Your task to perform on an android device: Clear the shopping cart on amazon. Image 0: 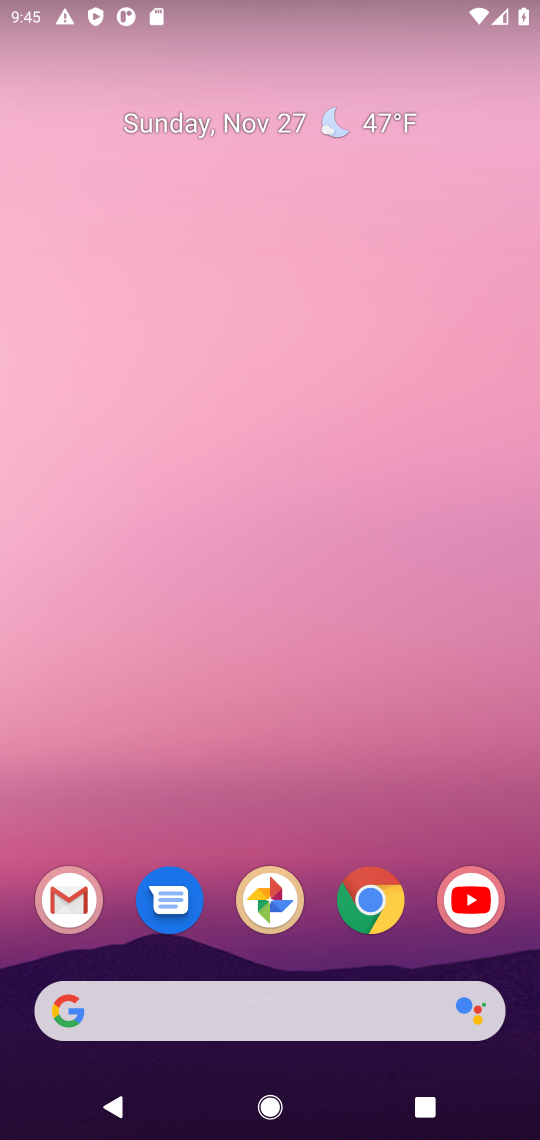
Step 0: click (373, 910)
Your task to perform on an android device: Clear the shopping cart on amazon. Image 1: 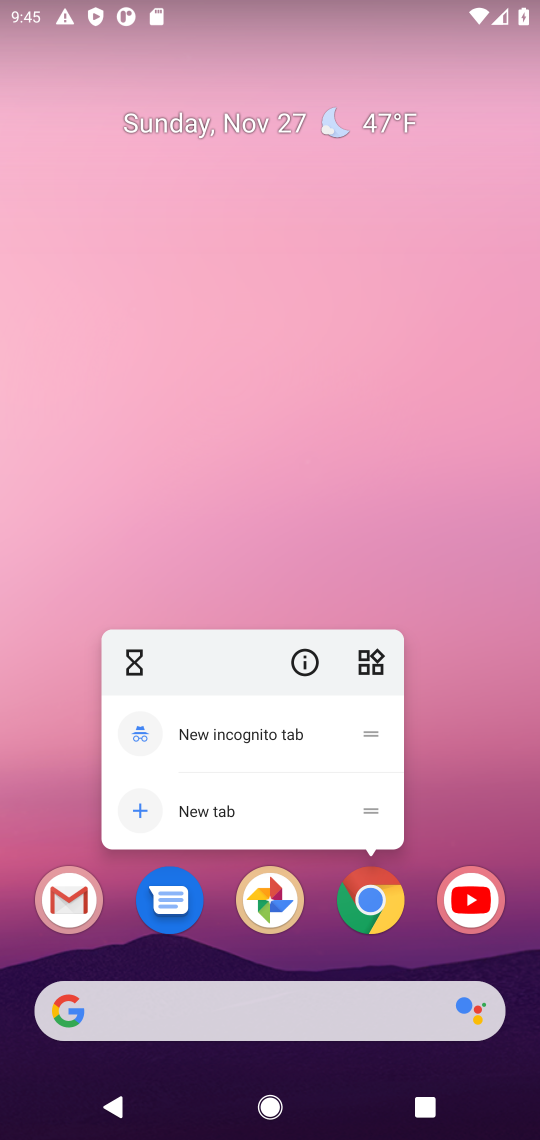
Step 1: click (373, 910)
Your task to perform on an android device: Clear the shopping cart on amazon. Image 2: 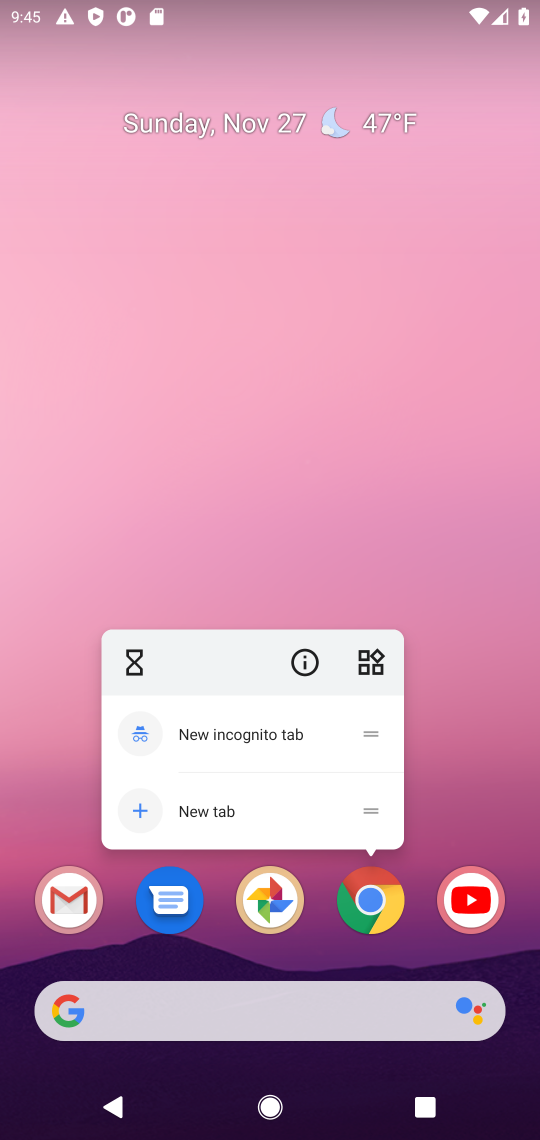
Step 2: click (379, 898)
Your task to perform on an android device: Clear the shopping cart on amazon. Image 3: 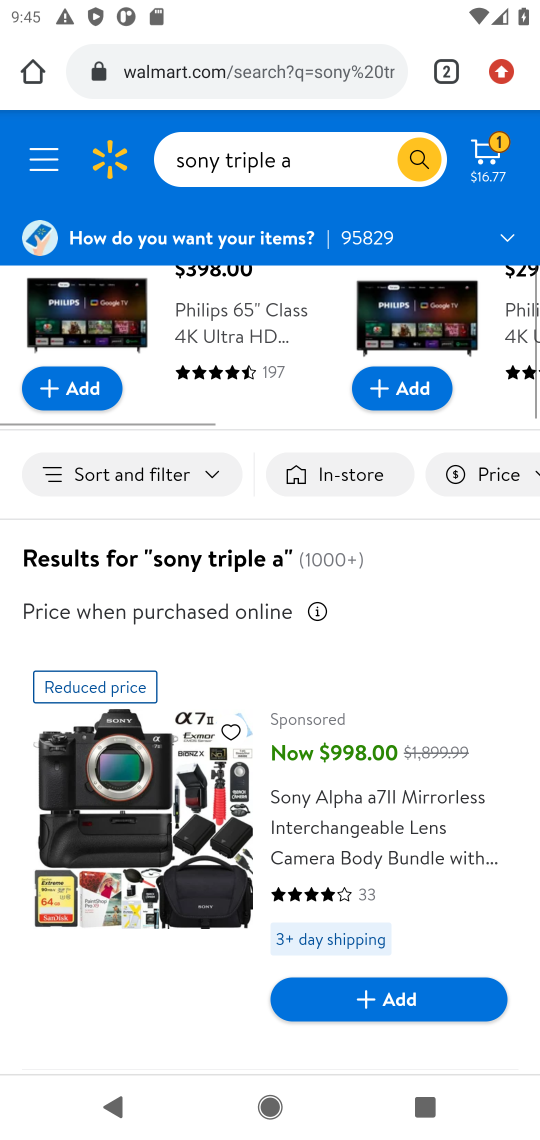
Step 3: click (280, 74)
Your task to perform on an android device: Clear the shopping cart on amazon. Image 4: 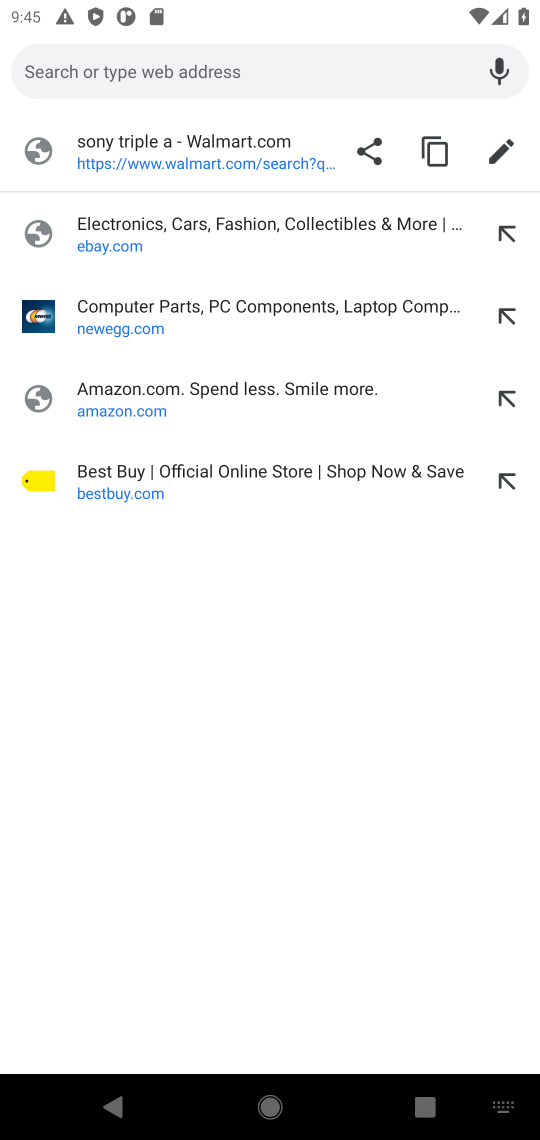
Step 4: click (91, 391)
Your task to perform on an android device: Clear the shopping cart on amazon. Image 5: 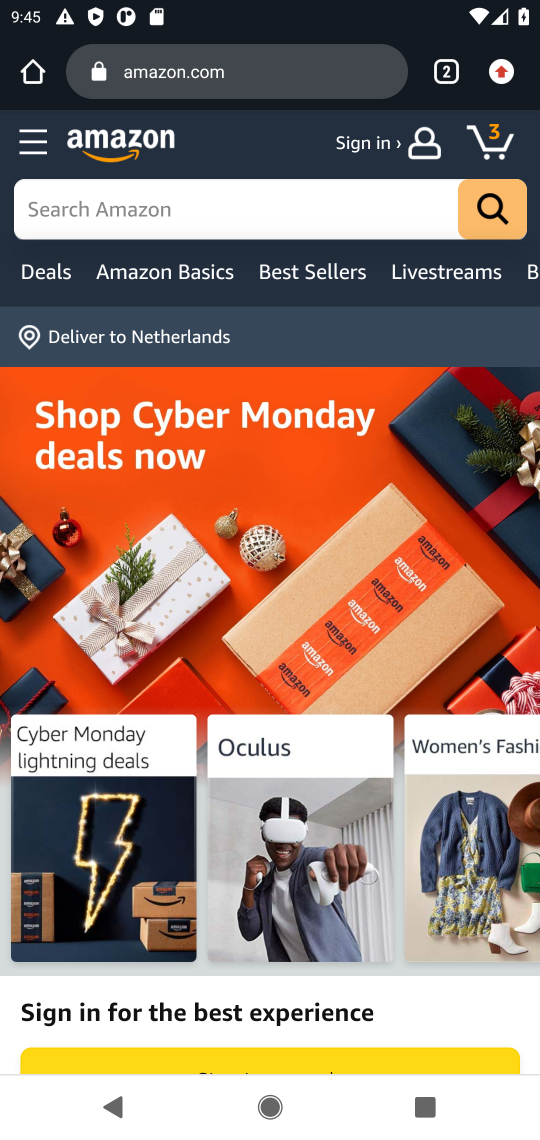
Step 5: click (481, 154)
Your task to perform on an android device: Clear the shopping cart on amazon. Image 6: 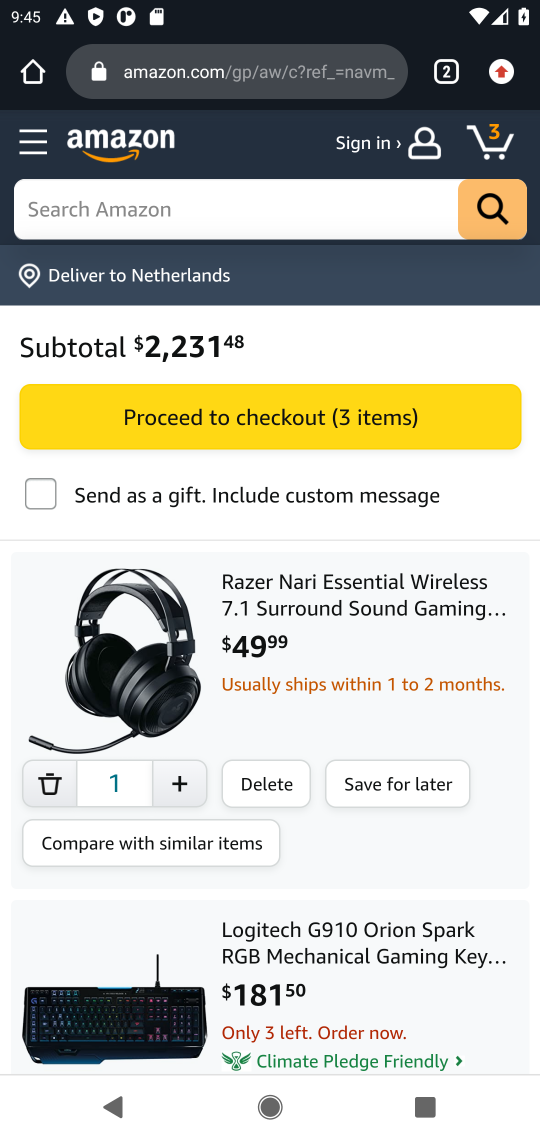
Step 6: click (253, 783)
Your task to perform on an android device: Clear the shopping cart on amazon. Image 7: 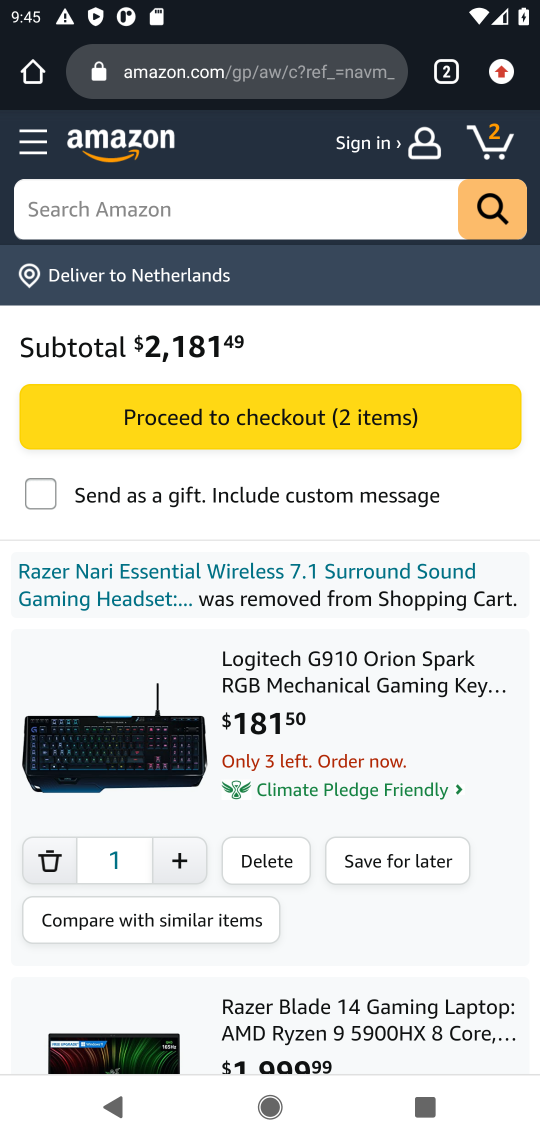
Step 7: click (253, 783)
Your task to perform on an android device: Clear the shopping cart on amazon. Image 8: 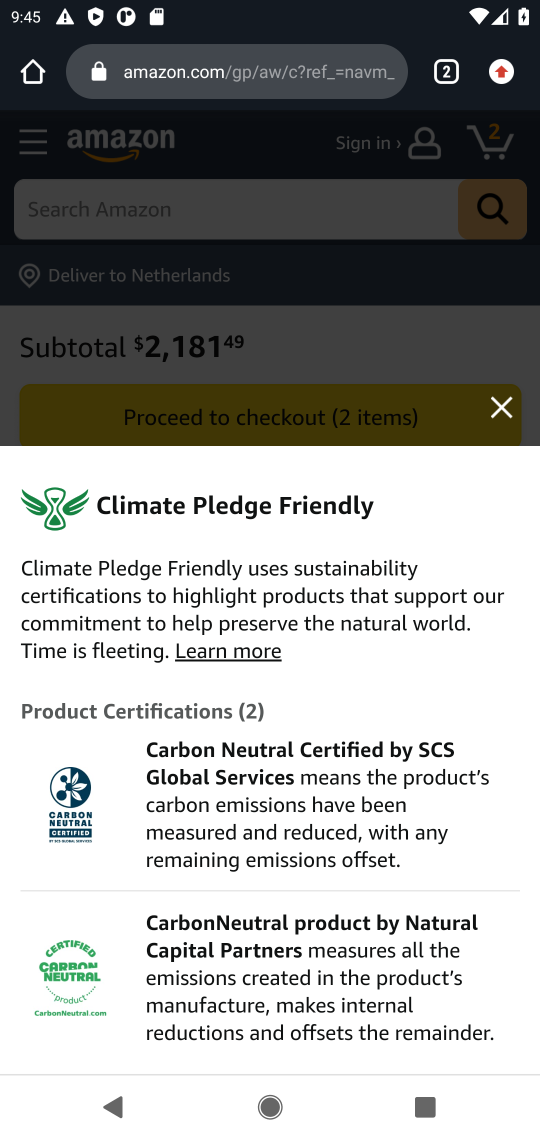
Step 8: click (502, 413)
Your task to perform on an android device: Clear the shopping cart on amazon. Image 9: 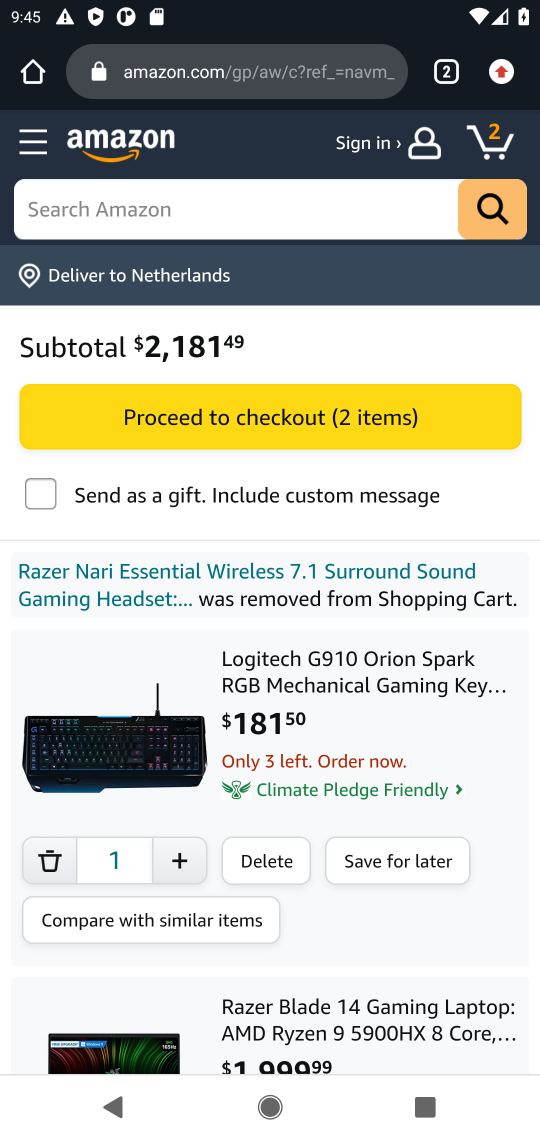
Step 9: click (259, 851)
Your task to perform on an android device: Clear the shopping cart on amazon. Image 10: 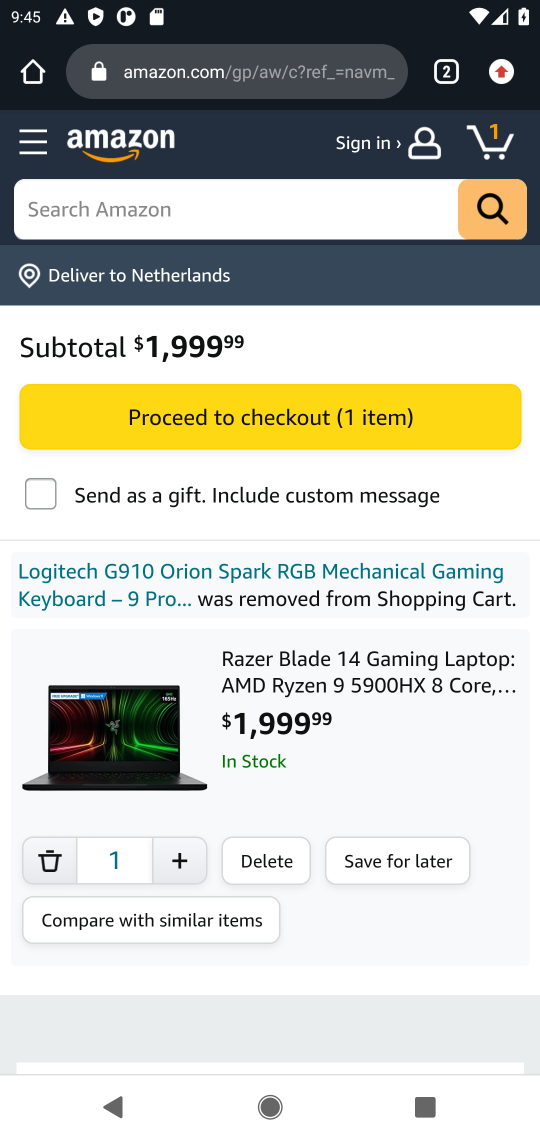
Step 10: click (259, 851)
Your task to perform on an android device: Clear the shopping cart on amazon. Image 11: 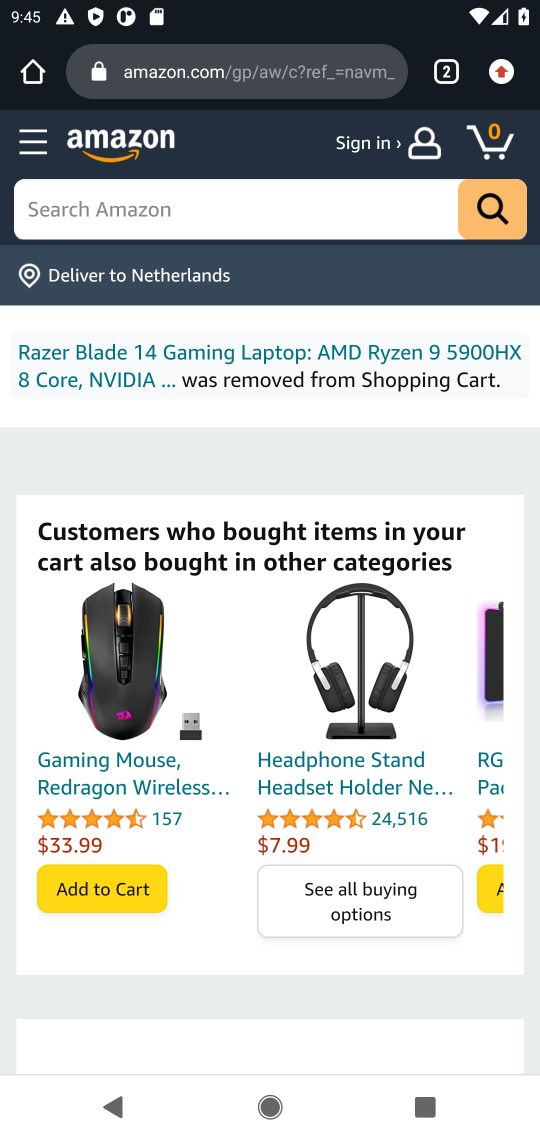
Step 11: task complete